Your task to perform on an android device: visit the assistant section in the google photos Image 0: 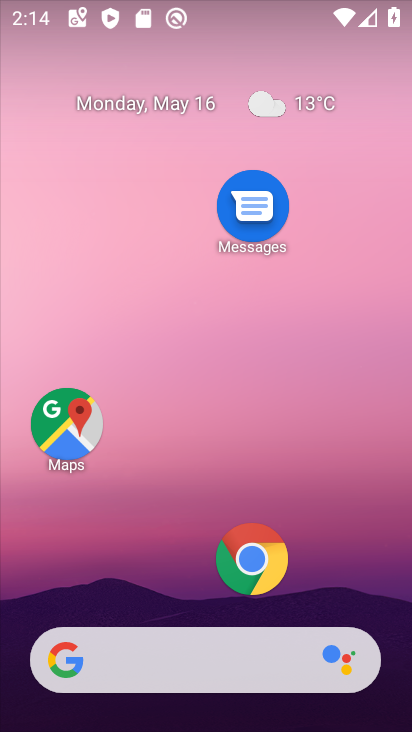
Step 0: drag from (169, 575) to (207, 216)
Your task to perform on an android device: visit the assistant section in the google photos Image 1: 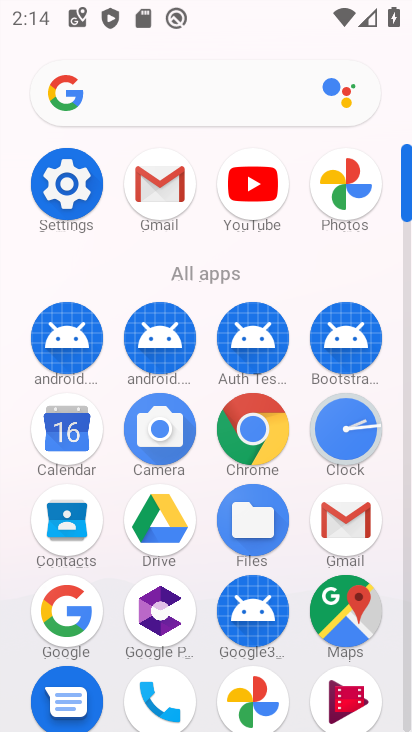
Step 1: click (266, 691)
Your task to perform on an android device: visit the assistant section in the google photos Image 2: 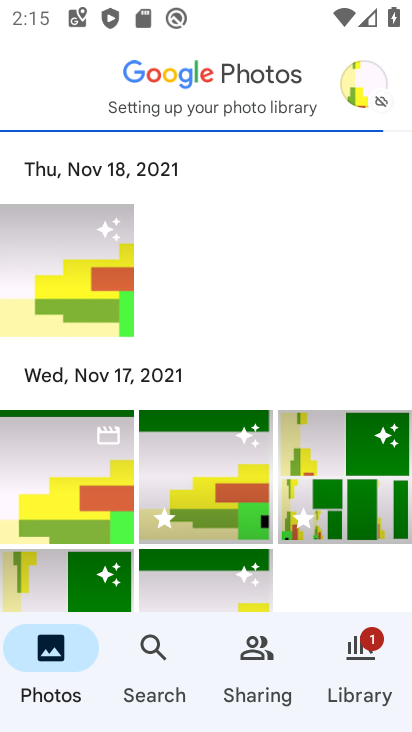
Step 2: task complete